Your task to perform on an android device: turn off improve location accuracy Image 0: 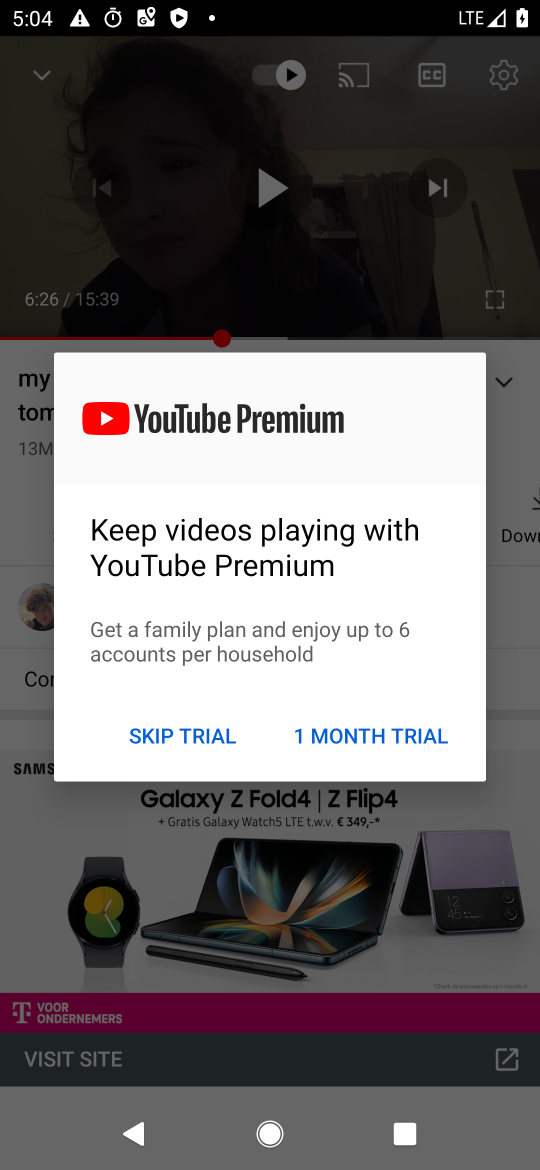
Step 0: press home button
Your task to perform on an android device: turn off improve location accuracy Image 1: 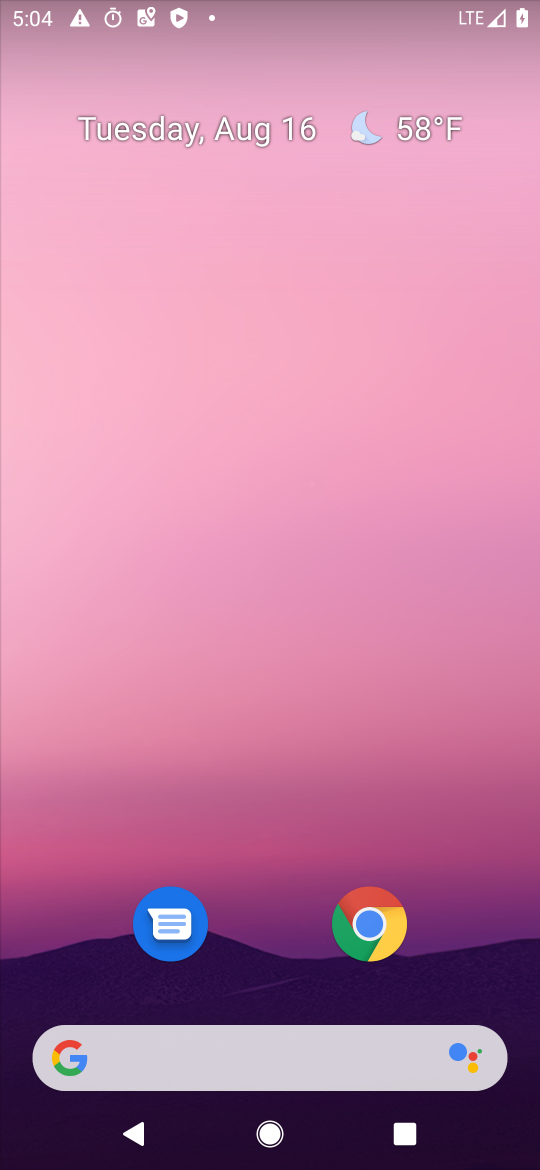
Step 1: drag from (263, 945) to (269, 85)
Your task to perform on an android device: turn off improve location accuracy Image 2: 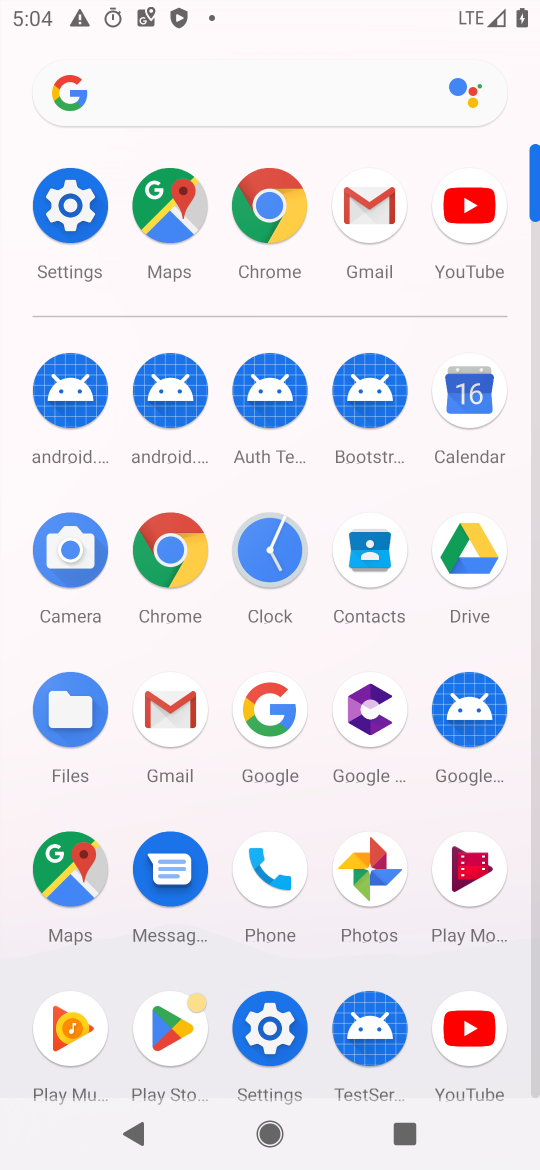
Step 2: click (93, 311)
Your task to perform on an android device: turn off improve location accuracy Image 3: 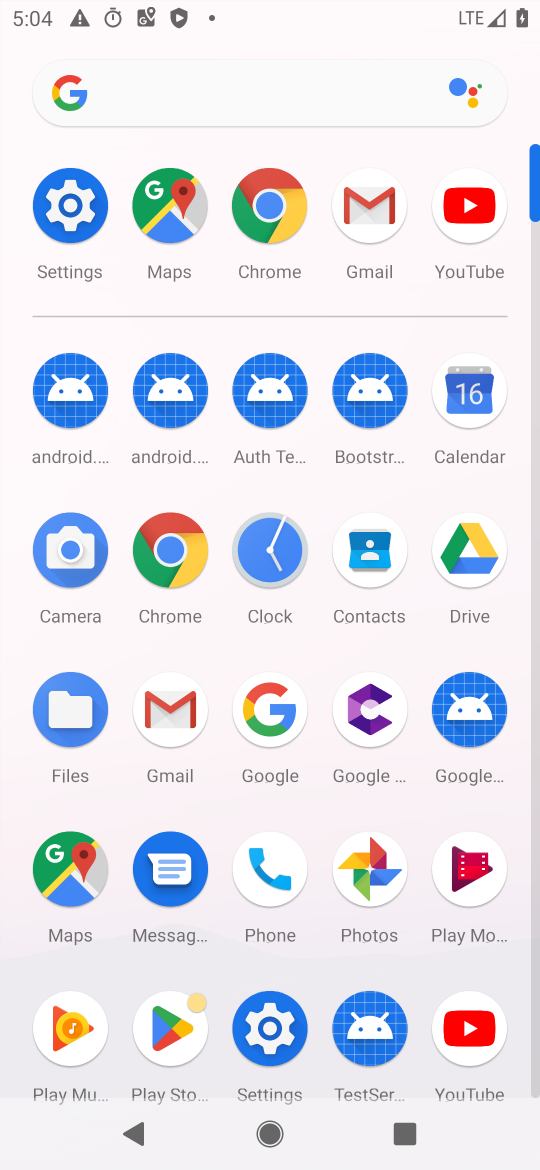
Step 3: click (66, 223)
Your task to perform on an android device: turn off improve location accuracy Image 4: 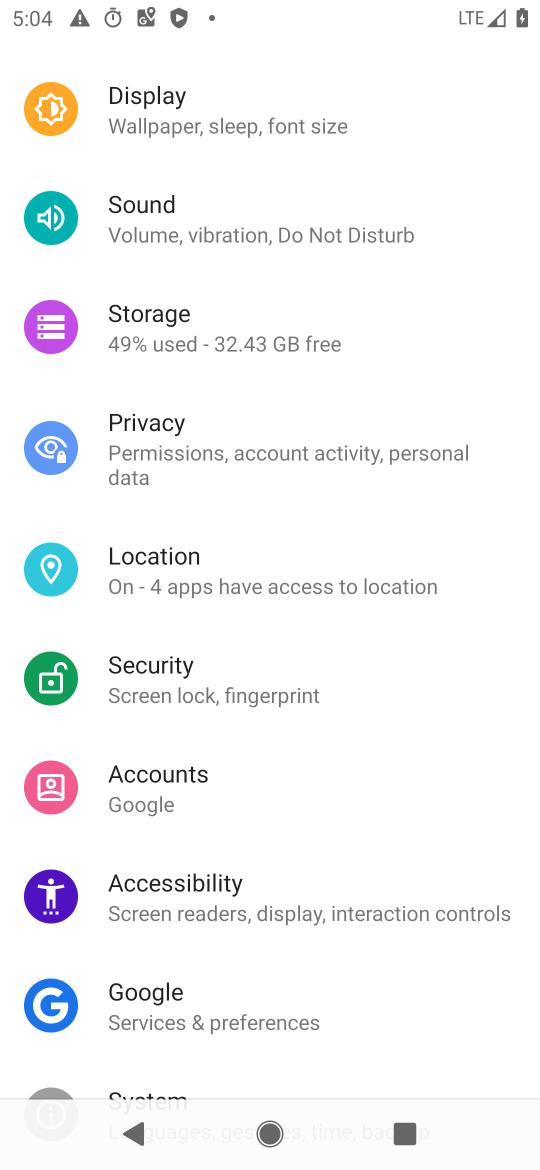
Step 4: click (221, 595)
Your task to perform on an android device: turn off improve location accuracy Image 5: 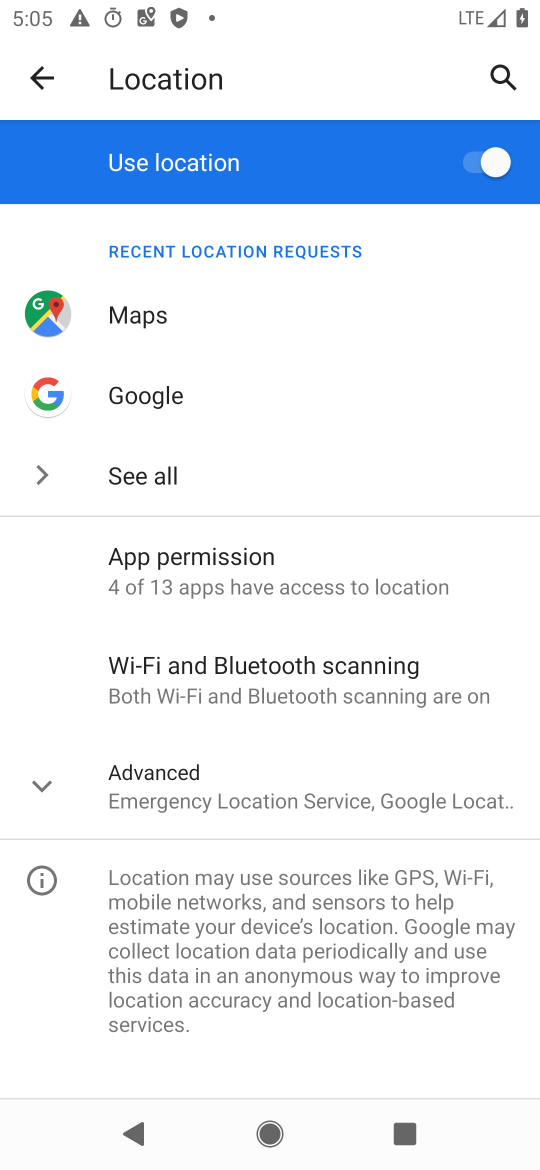
Step 5: click (182, 805)
Your task to perform on an android device: turn off improve location accuracy Image 6: 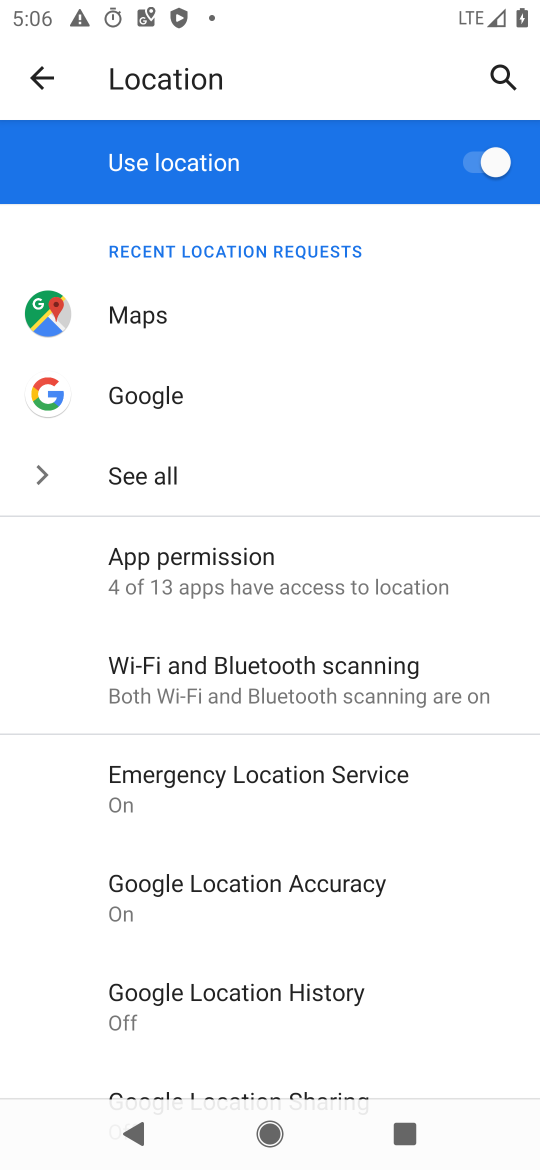
Step 6: click (194, 896)
Your task to perform on an android device: turn off improve location accuracy Image 7: 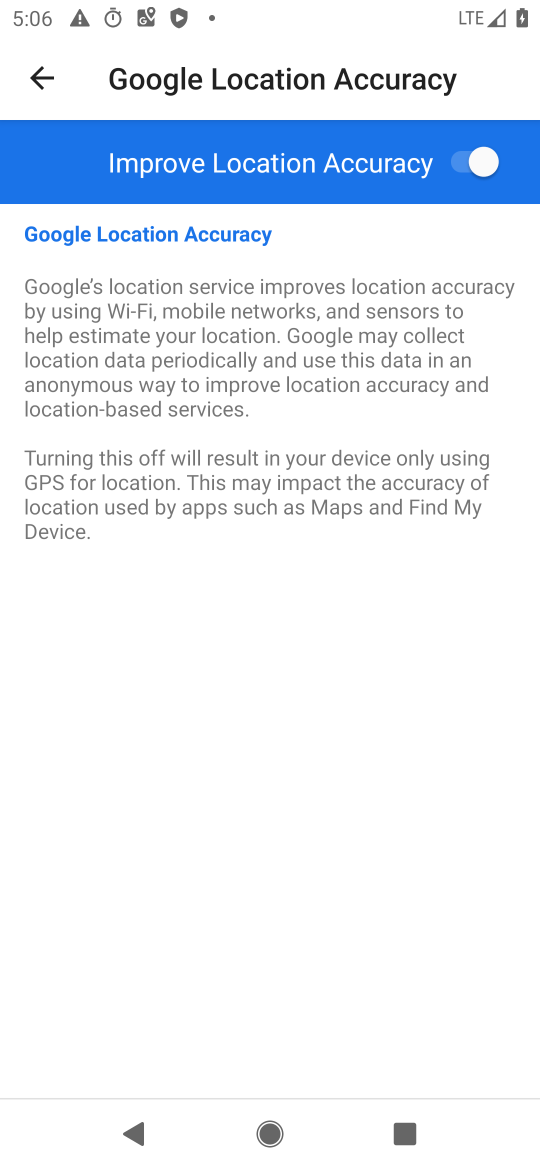
Step 7: click (460, 175)
Your task to perform on an android device: turn off improve location accuracy Image 8: 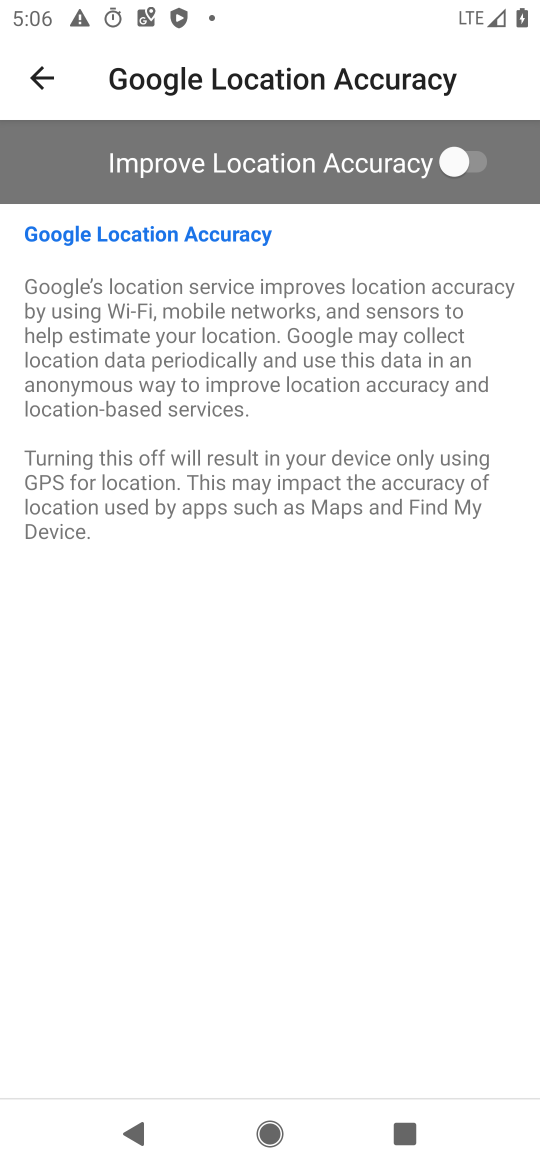
Step 8: task complete